Your task to perform on an android device: toggle javascript in the chrome app Image 0: 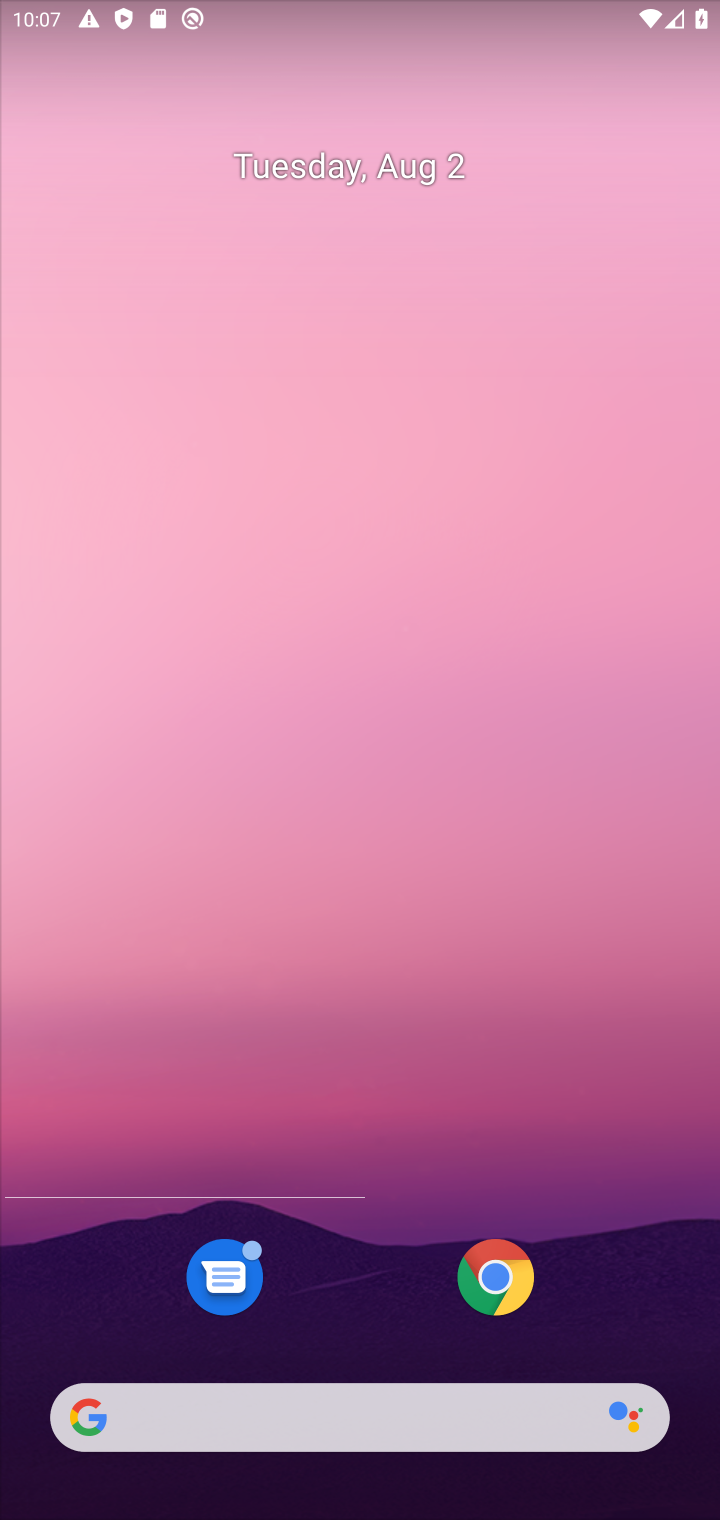
Step 0: press home button
Your task to perform on an android device: toggle javascript in the chrome app Image 1: 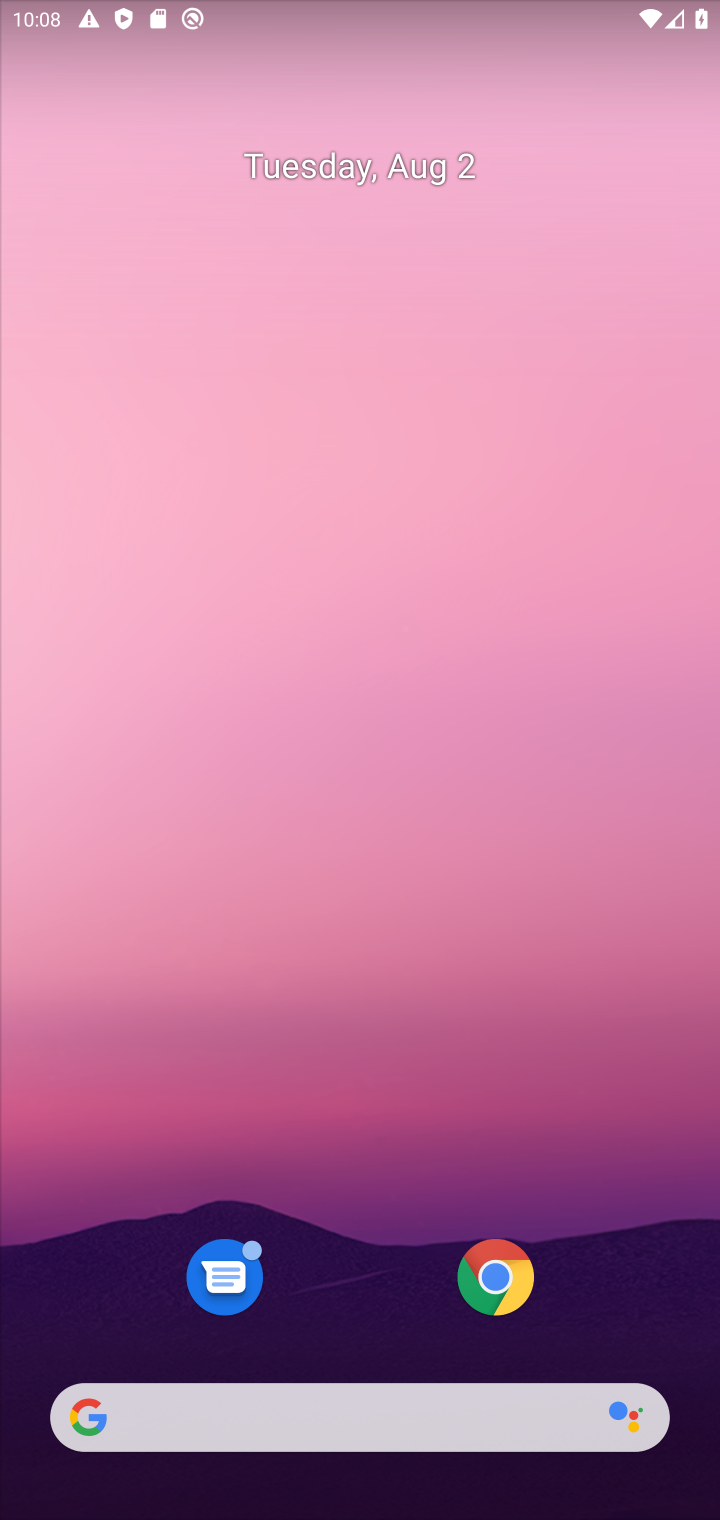
Step 1: drag from (371, 702) to (296, 2)
Your task to perform on an android device: toggle javascript in the chrome app Image 2: 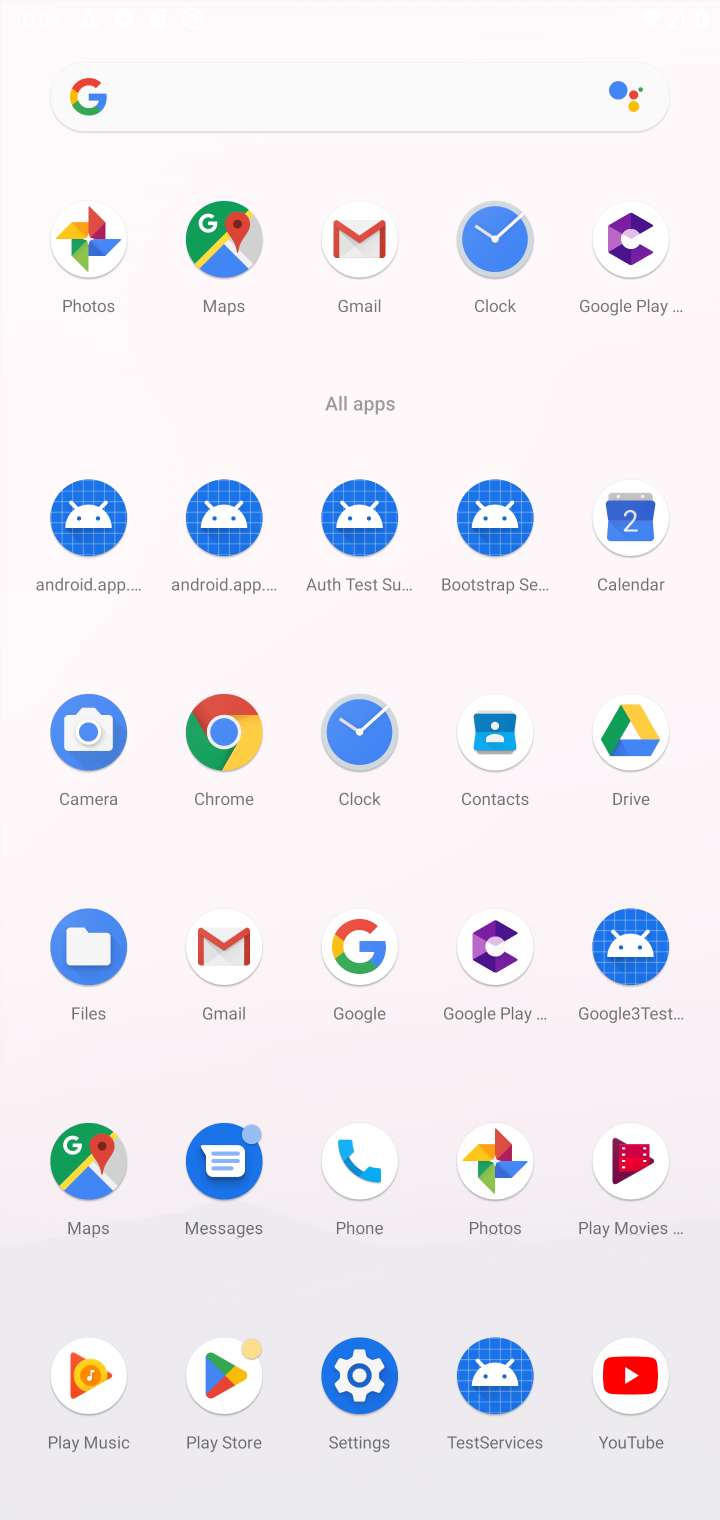
Step 2: click (228, 731)
Your task to perform on an android device: toggle javascript in the chrome app Image 3: 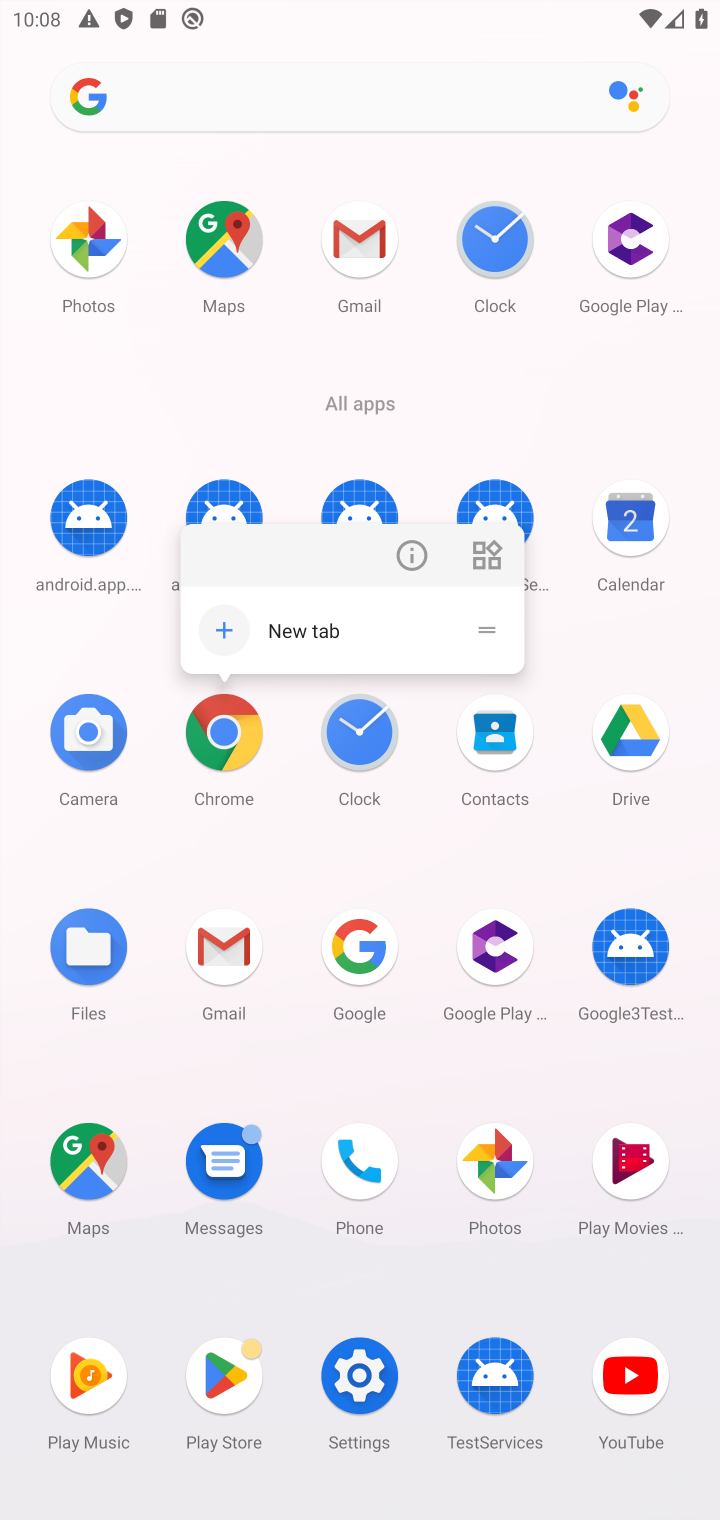
Step 3: click (229, 752)
Your task to perform on an android device: toggle javascript in the chrome app Image 4: 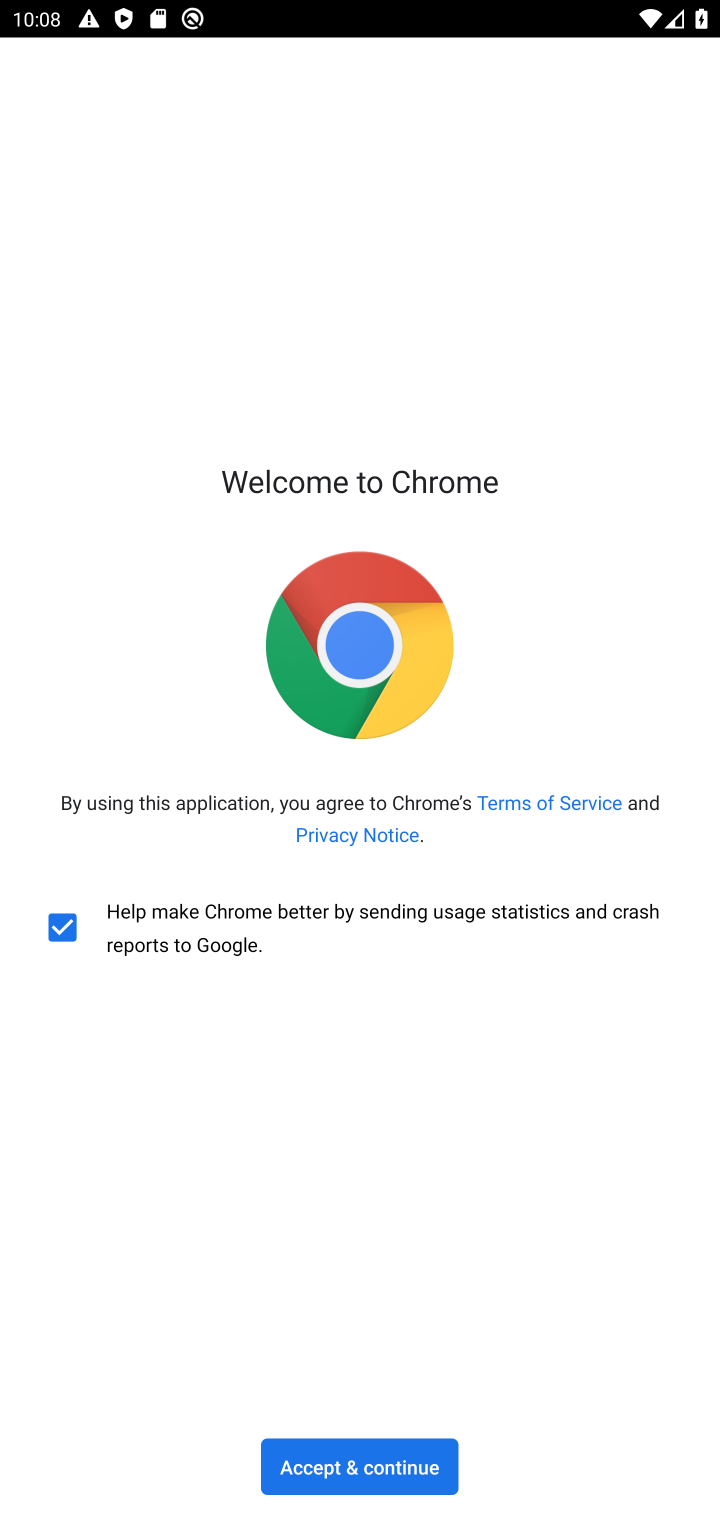
Step 4: click (399, 1456)
Your task to perform on an android device: toggle javascript in the chrome app Image 5: 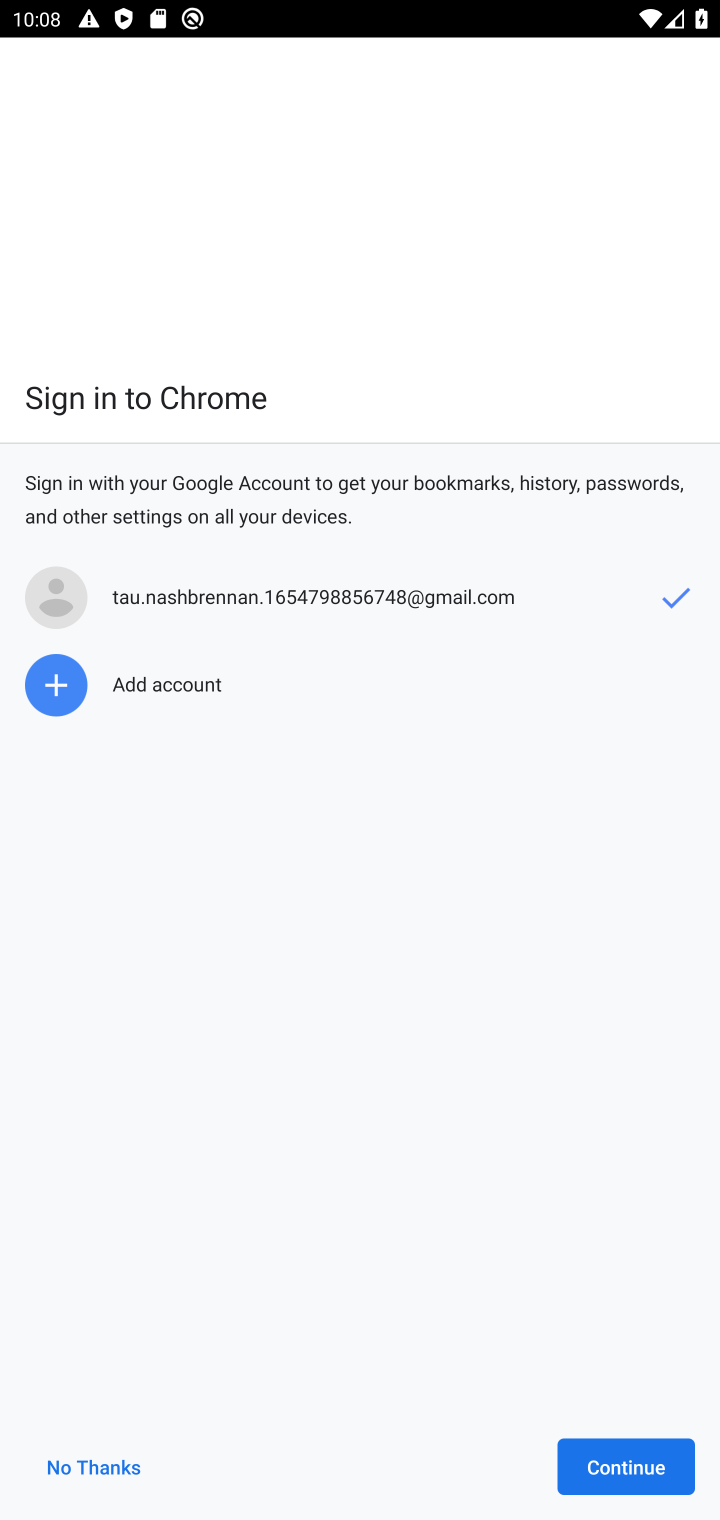
Step 5: click (609, 1462)
Your task to perform on an android device: toggle javascript in the chrome app Image 6: 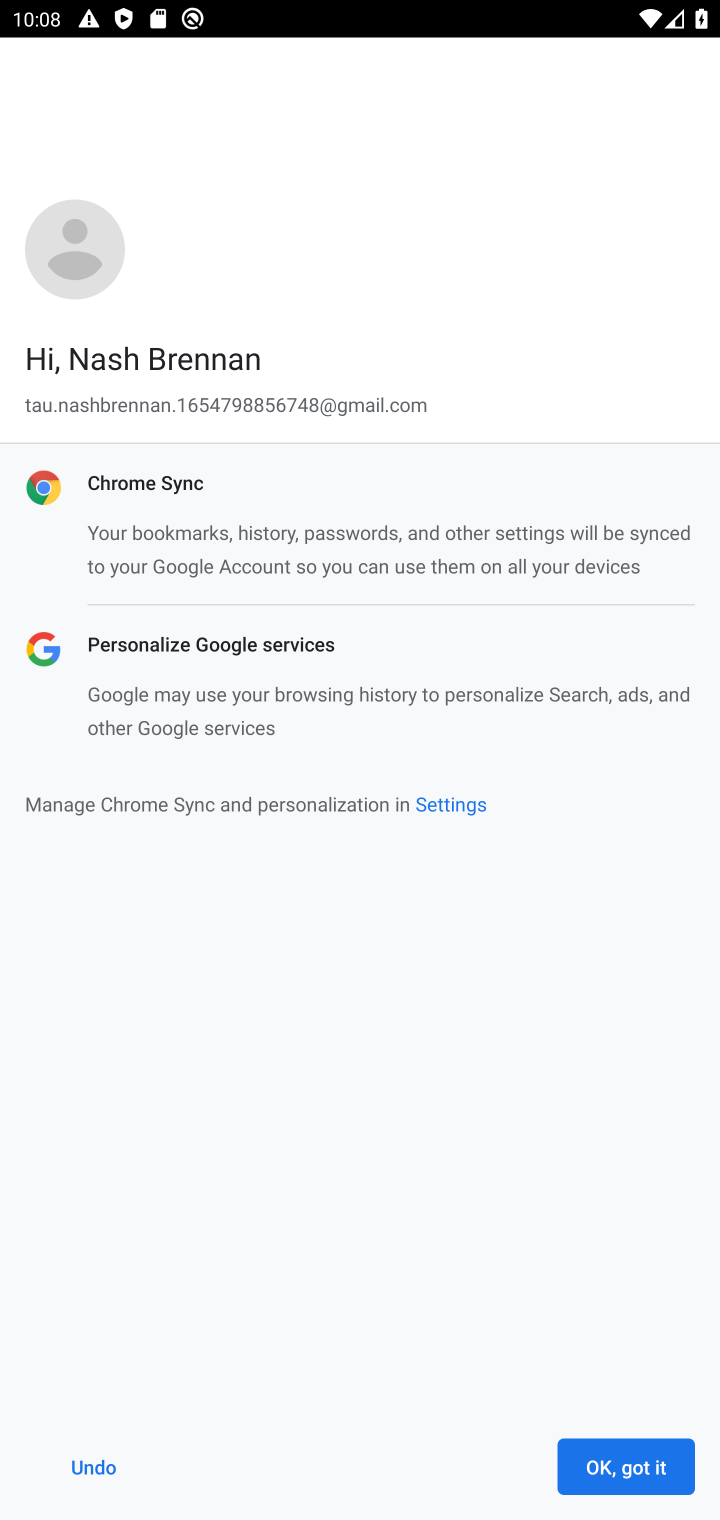
Step 6: click (609, 1462)
Your task to perform on an android device: toggle javascript in the chrome app Image 7: 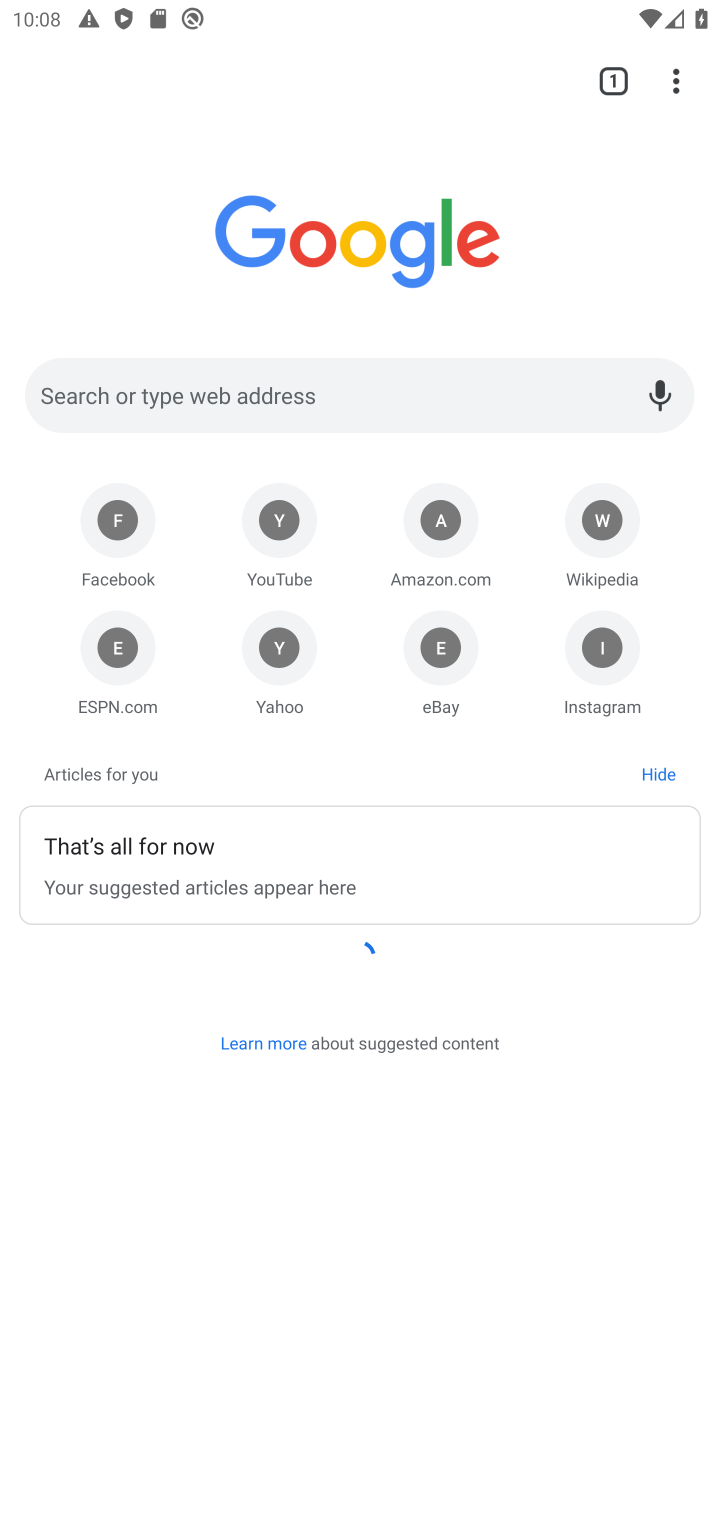
Step 7: drag from (668, 68) to (362, 698)
Your task to perform on an android device: toggle javascript in the chrome app Image 8: 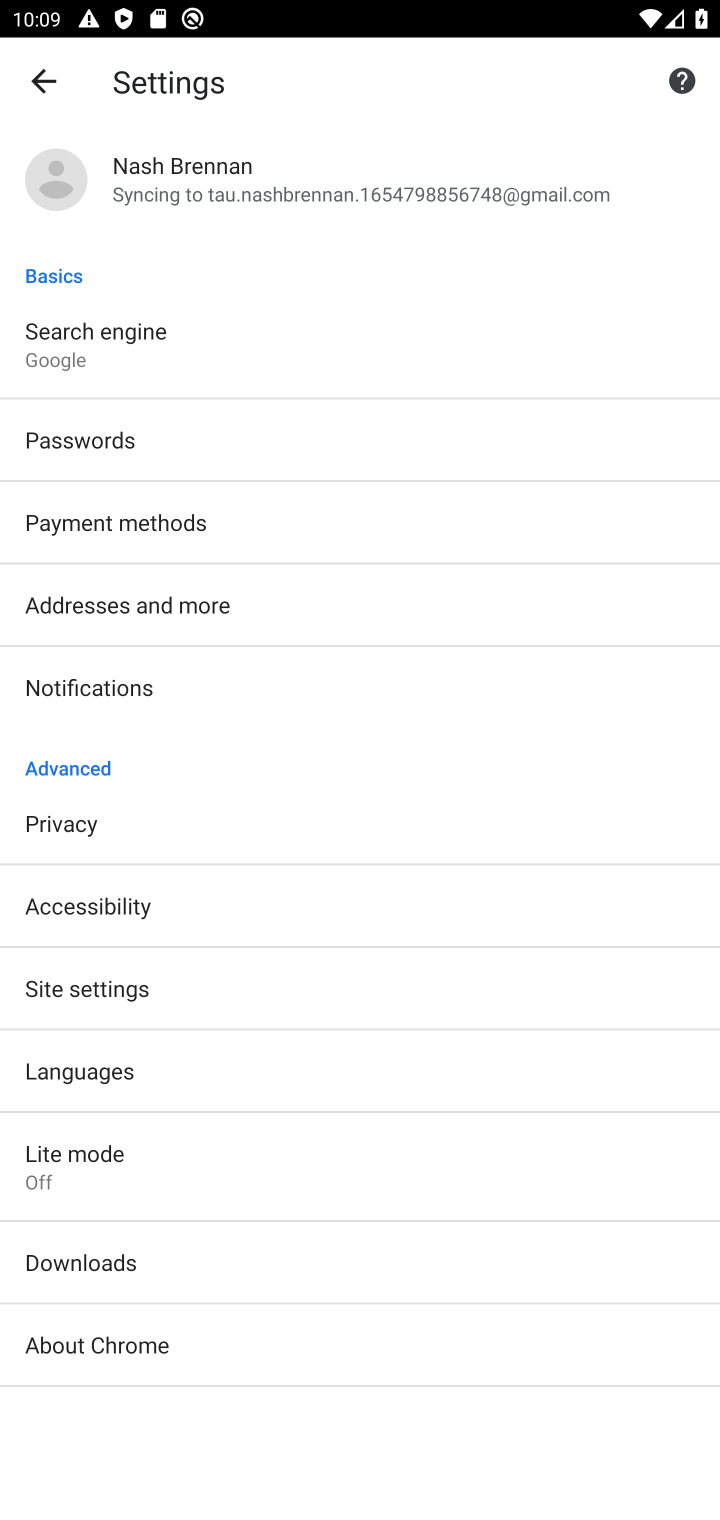
Step 8: click (66, 982)
Your task to perform on an android device: toggle javascript in the chrome app Image 9: 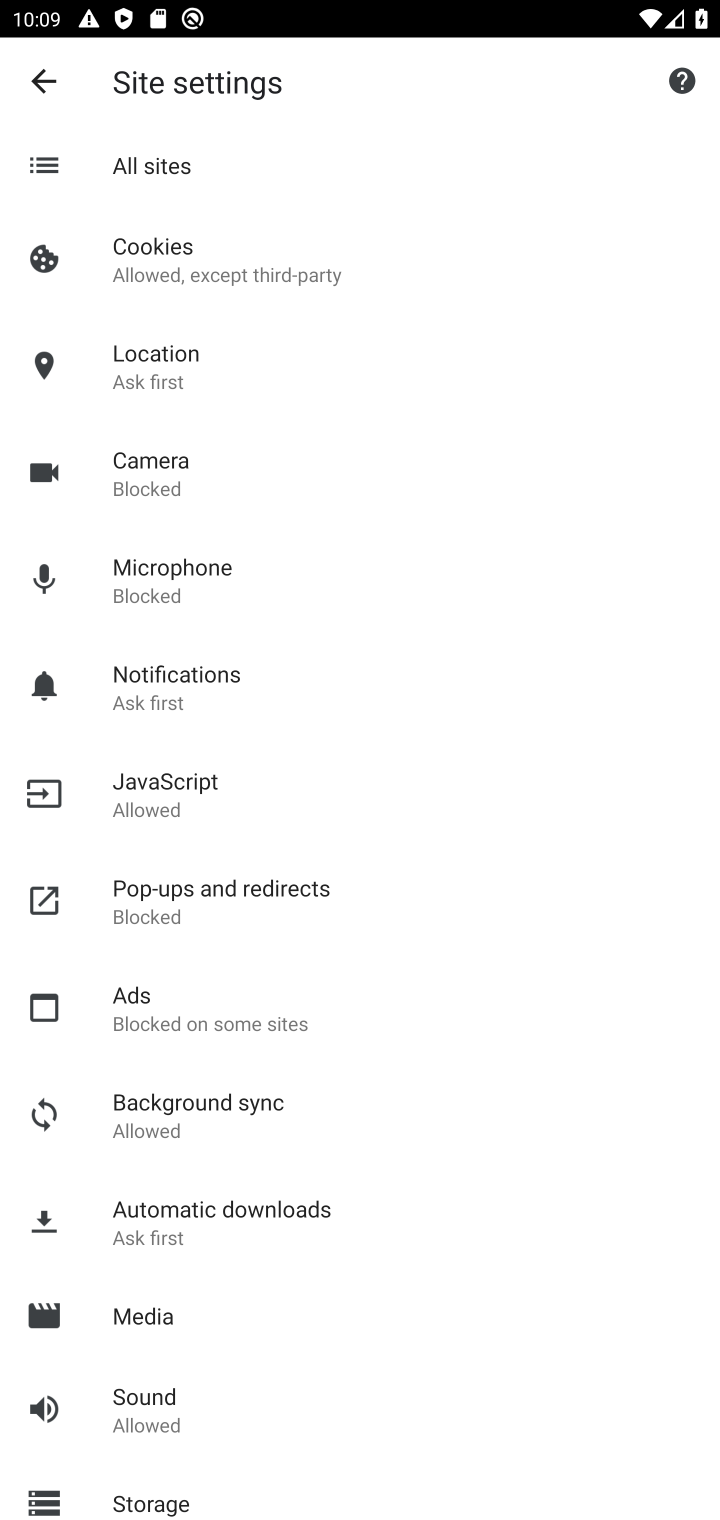
Step 9: click (156, 789)
Your task to perform on an android device: toggle javascript in the chrome app Image 10: 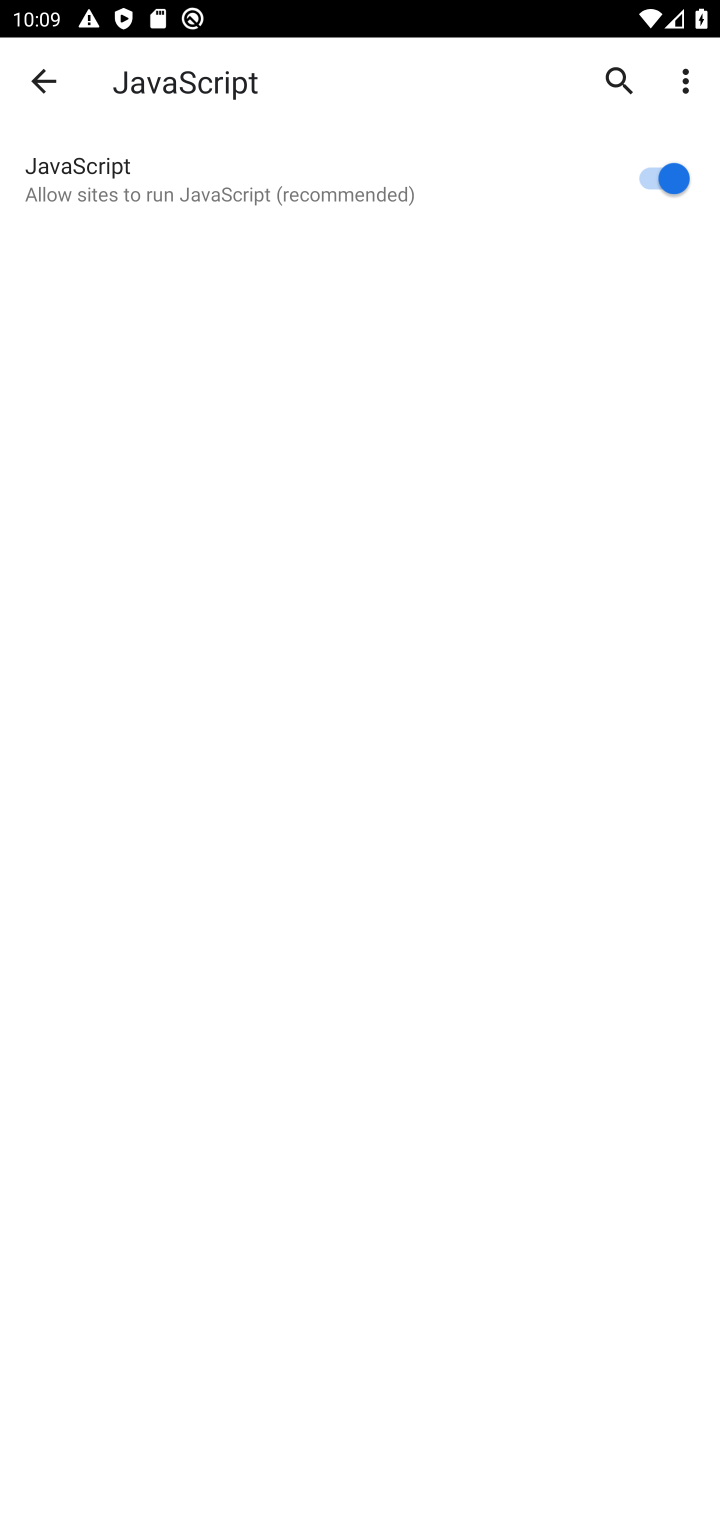
Step 10: click (664, 177)
Your task to perform on an android device: toggle javascript in the chrome app Image 11: 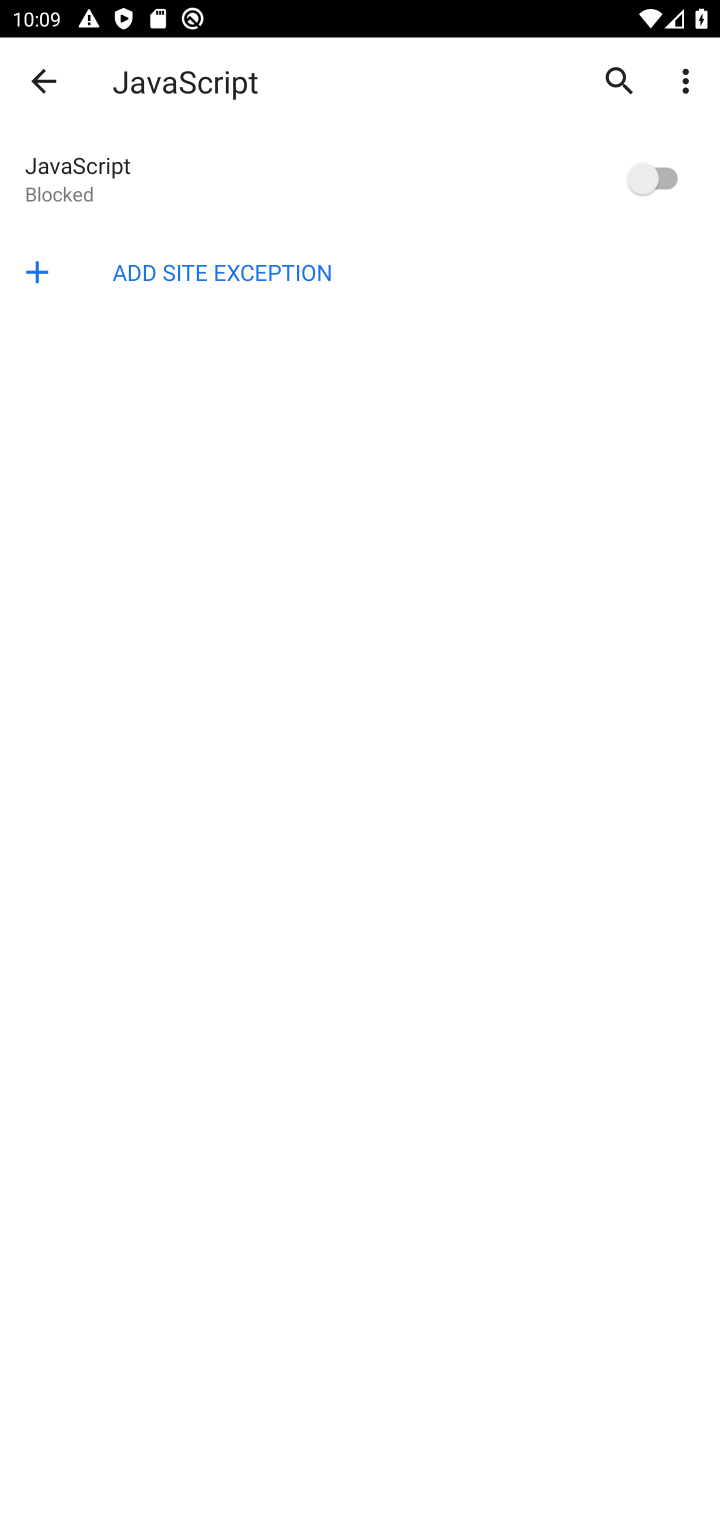
Step 11: task complete